Your task to perform on an android device: install app "Airtel Thanks" Image 0: 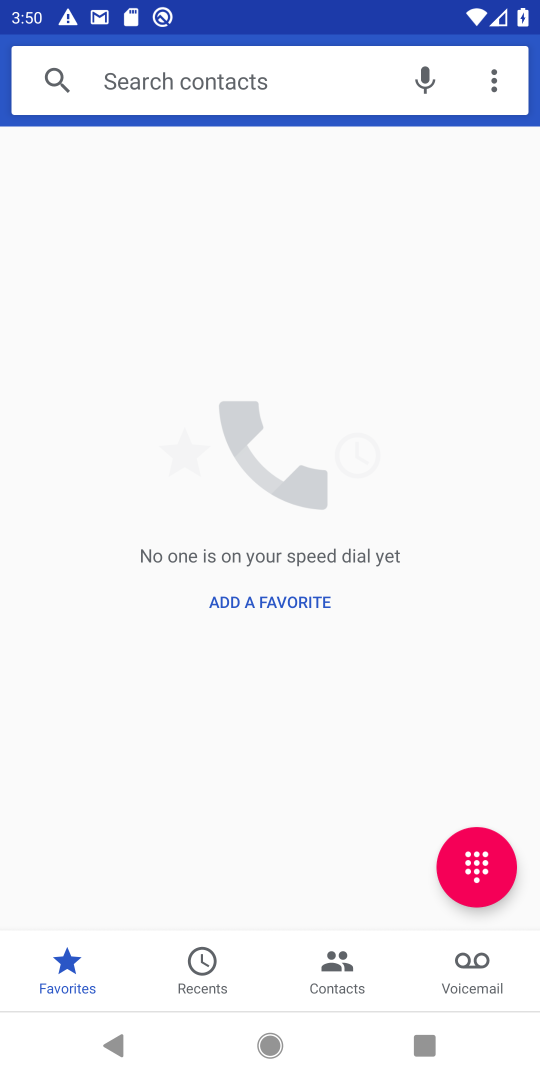
Step 0: press home button
Your task to perform on an android device: install app "Airtel Thanks" Image 1: 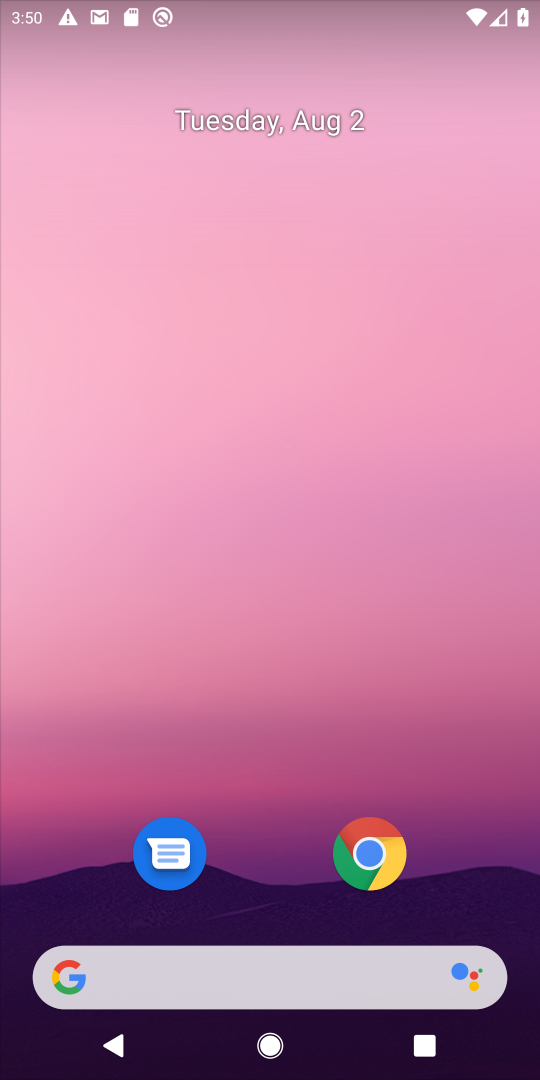
Step 1: drag from (296, 998) to (253, 106)
Your task to perform on an android device: install app "Airtel Thanks" Image 2: 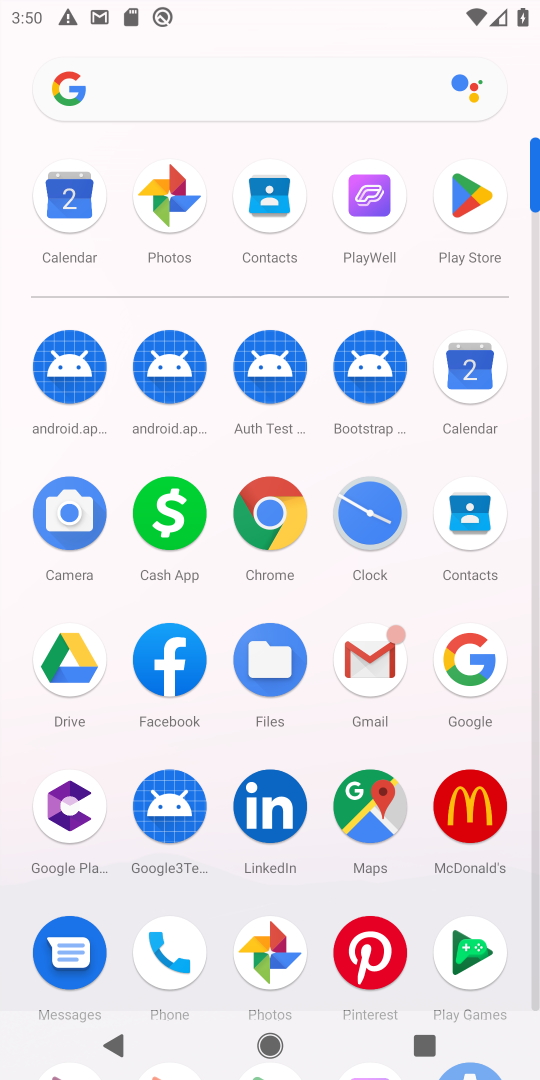
Step 2: click (461, 207)
Your task to perform on an android device: install app "Airtel Thanks" Image 3: 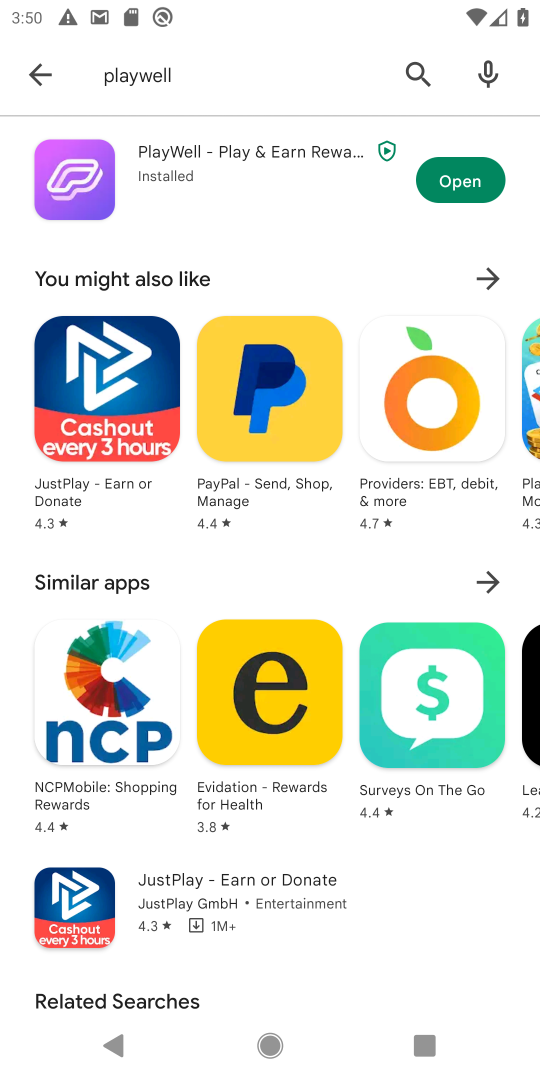
Step 3: click (414, 74)
Your task to perform on an android device: install app "Airtel Thanks" Image 4: 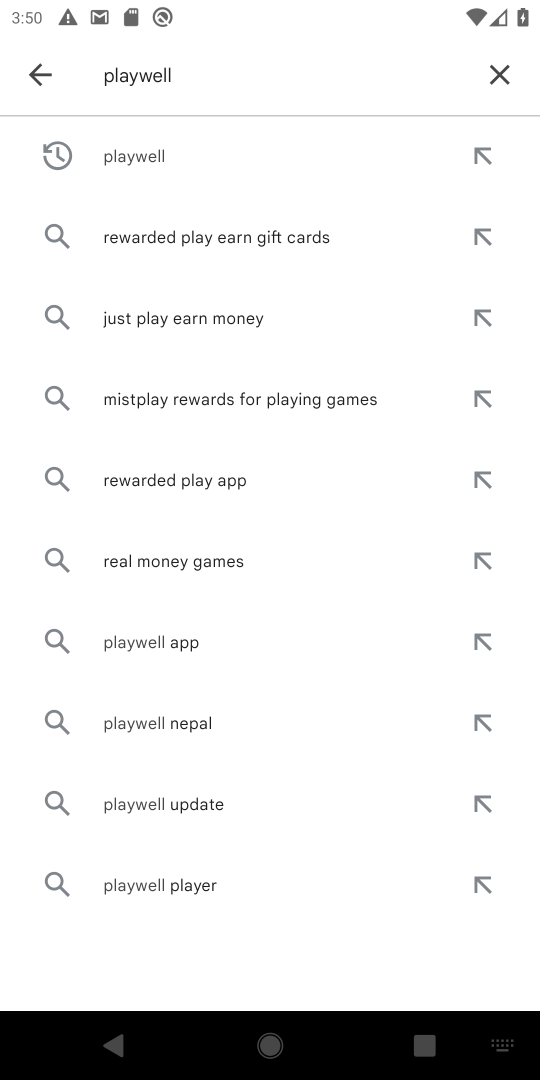
Step 4: click (492, 68)
Your task to perform on an android device: install app "Airtel Thanks" Image 5: 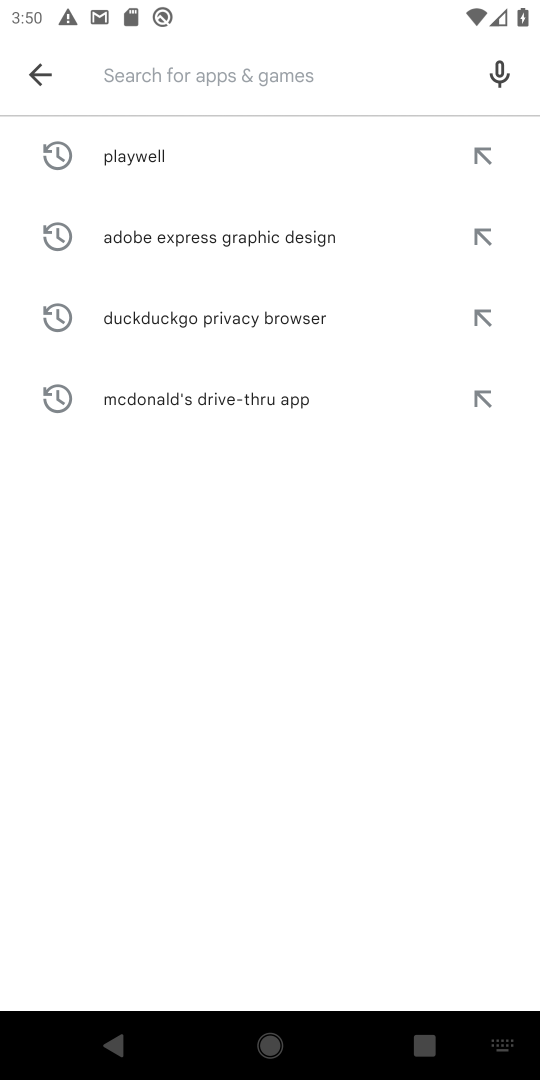
Step 5: type "Airtel Thanks"
Your task to perform on an android device: install app "Airtel Thanks" Image 6: 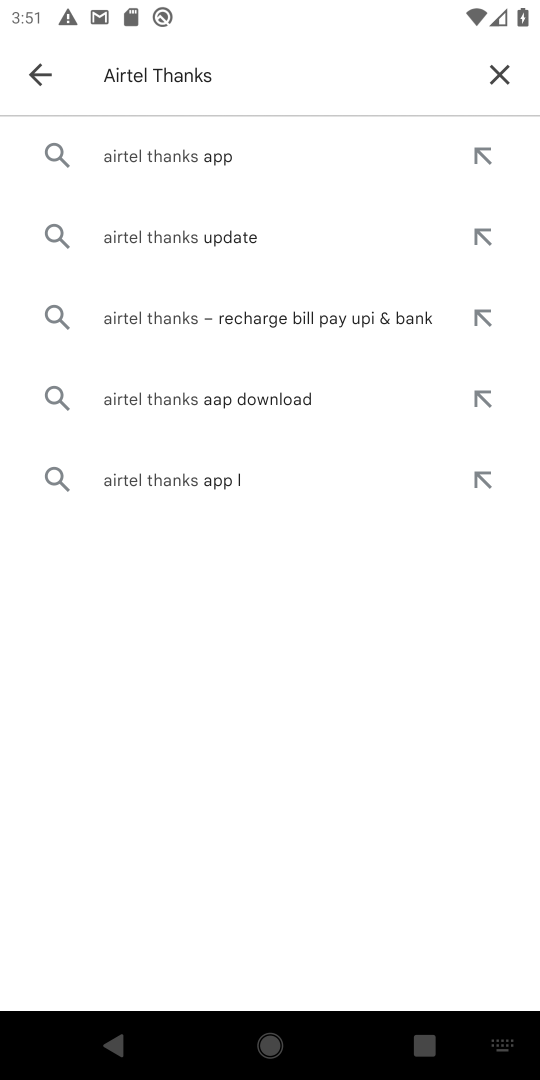
Step 6: click (167, 154)
Your task to perform on an android device: install app "Airtel Thanks" Image 7: 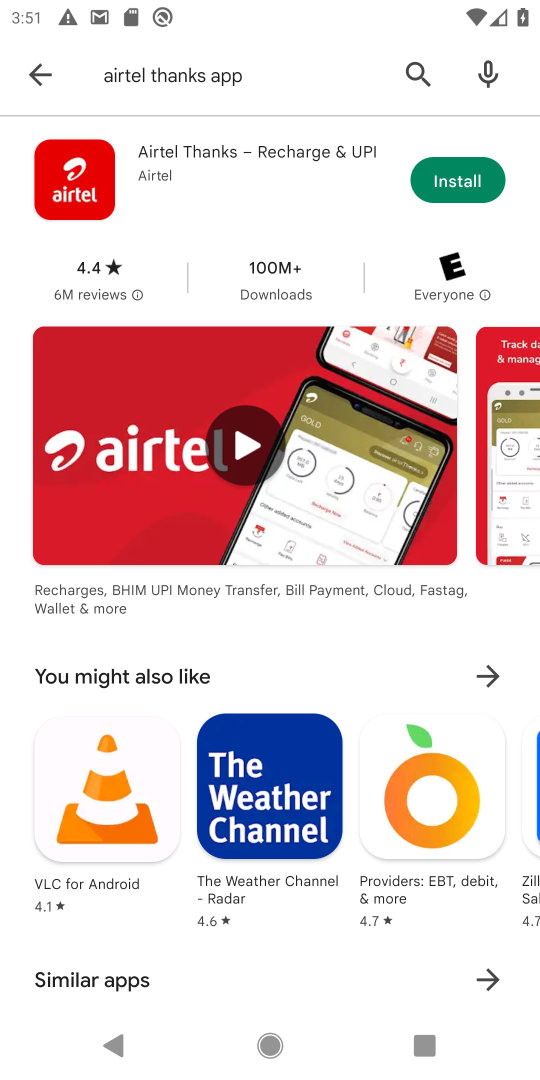
Step 7: click (442, 178)
Your task to perform on an android device: install app "Airtel Thanks" Image 8: 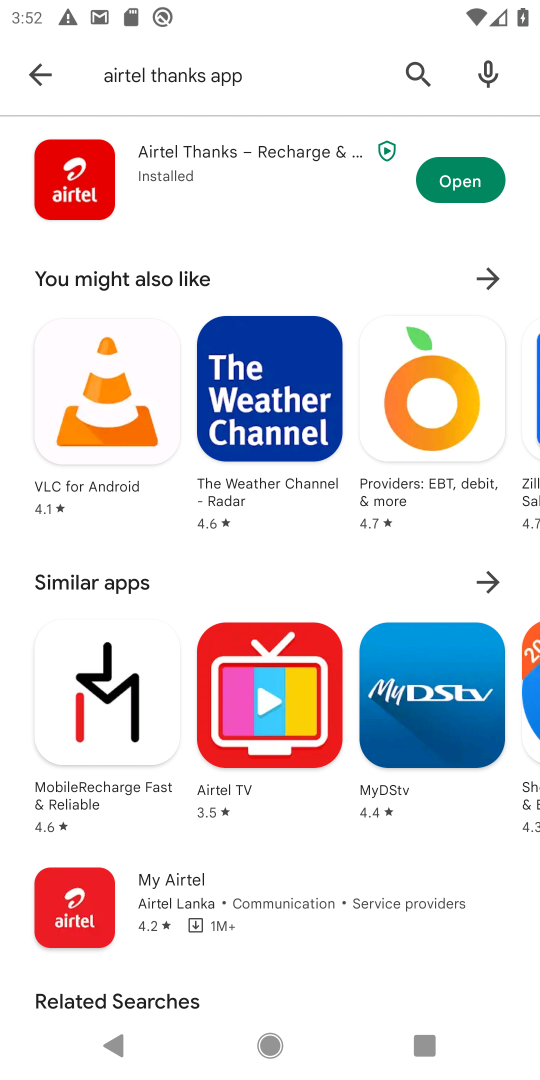
Step 8: task complete